Your task to perform on an android device: Open the calendar and show me this week's events? Image 0: 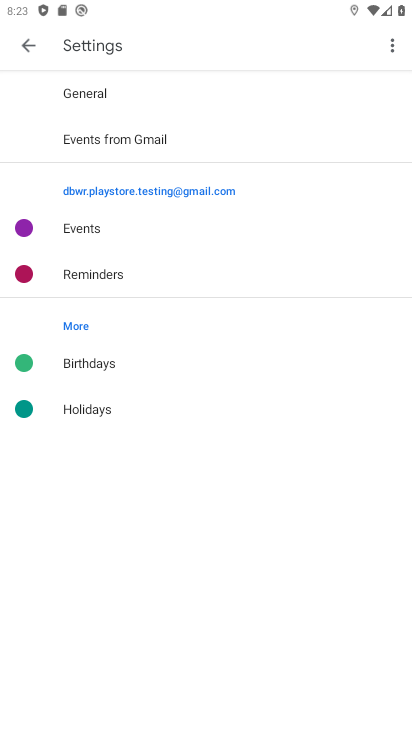
Step 0: press home button
Your task to perform on an android device: Open the calendar and show me this week's events? Image 1: 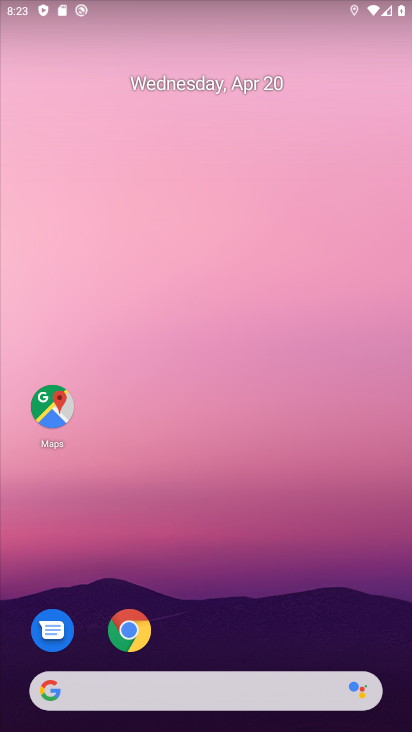
Step 1: drag from (236, 379) to (305, 5)
Your task to perform on an android device: Open the calendar and show me this week's events? Image 2: 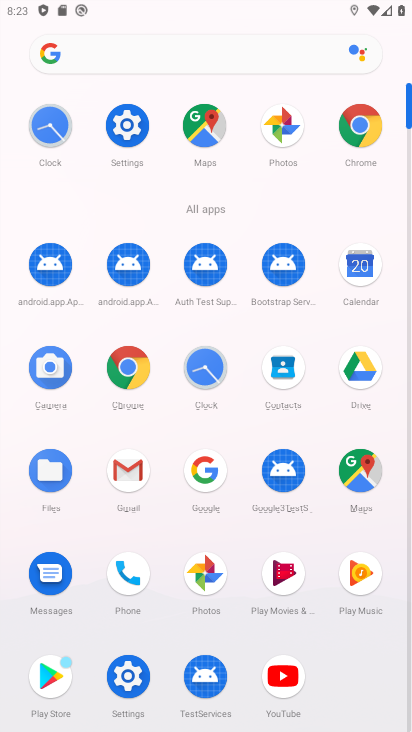
Step 2: drag from (212, 628) to (230, 57)
Your task to perform on an android device: Open the calendar and show me this week's events? Image 3: 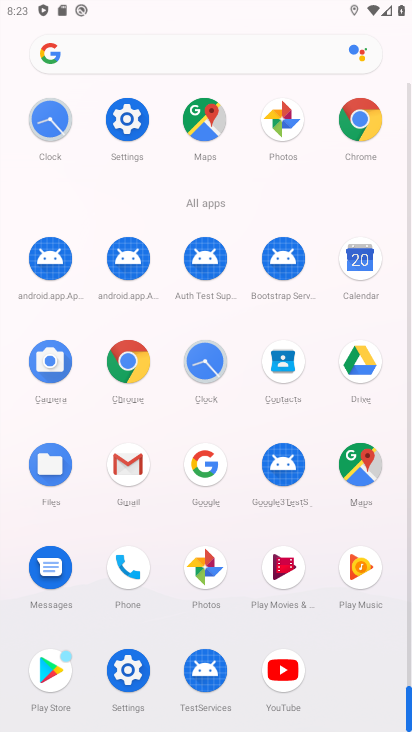
Step 3: click (372, 274)
Your task to perform on an android device: Open the calendar and show me this week's events? Image 4: 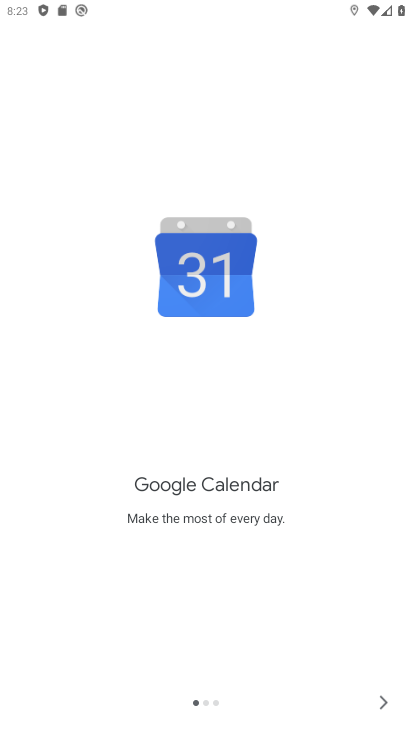
Step 4: click (372, 700)
Your task to perform on an android device: Open the calendar and show me this week's events? Image 5: 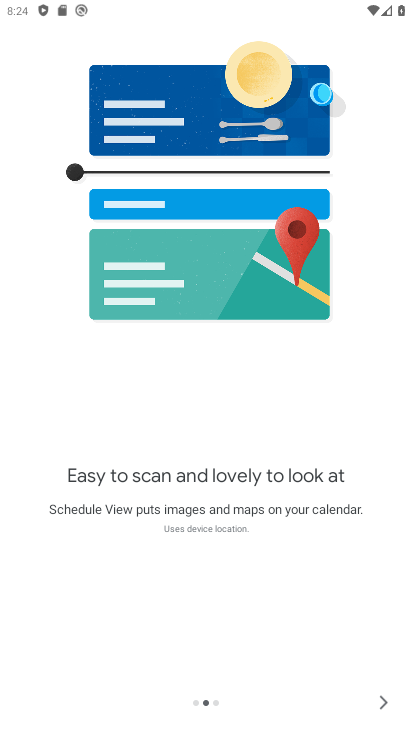
Step 5: click (373, 699)
Your task to perform on an android device: Open the calendar and show me this week's events? Image 6: 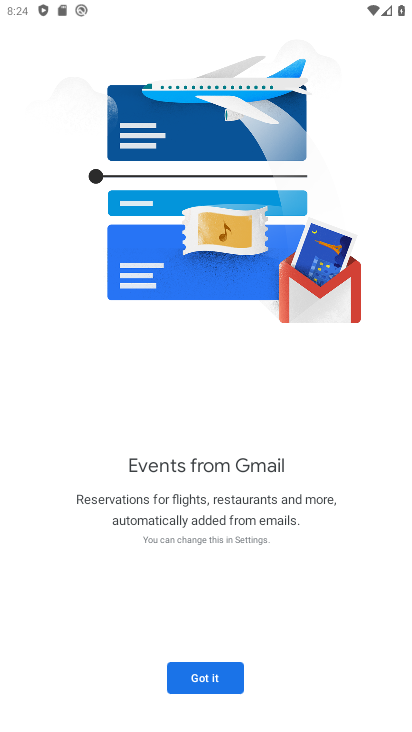
Step 6: click (193, 676)
Your task to perform on an android device: Open the calendar and show me this week's events? Image 7: 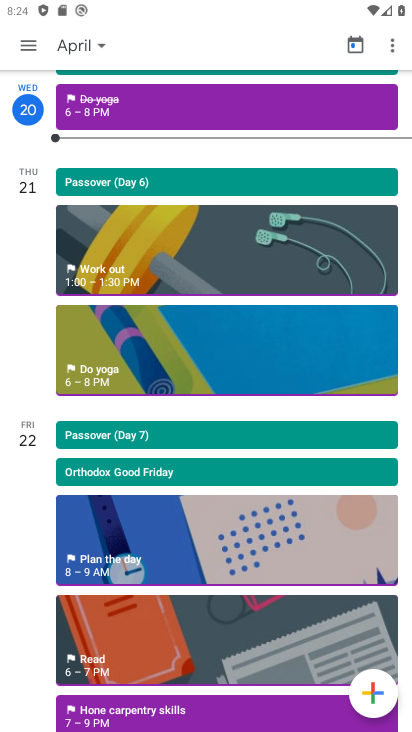
Step 7: click (29, 38)
Your task to perform on an android device: Open the calendar and show me this week's events? Image 8: 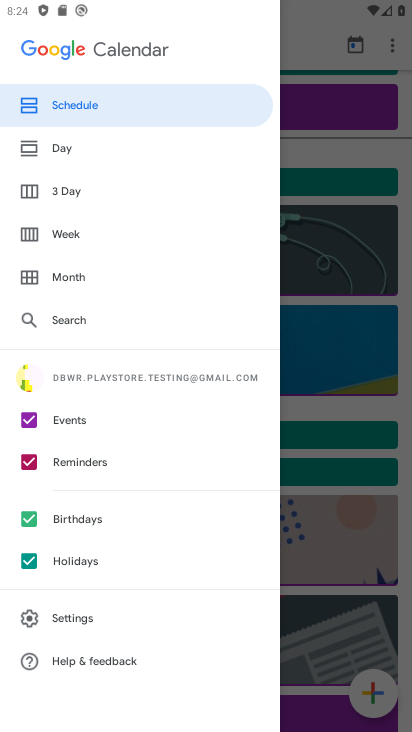
Step 8: click (36, 460)
Your task to perform on an android device: Open the calendar and show me this week's events? Image 9: 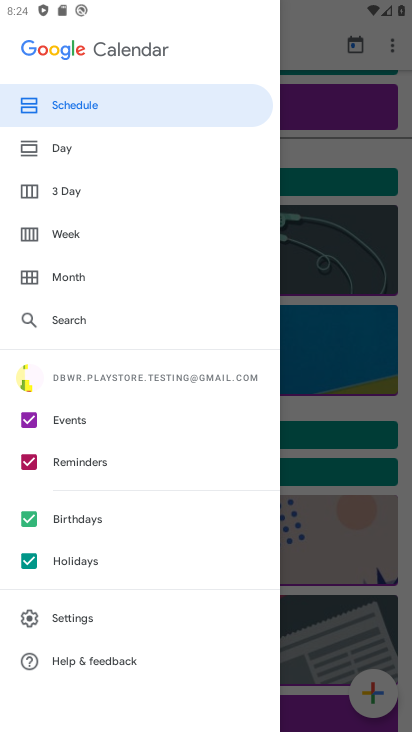
Step 9: click (26, 515)
Your task to perform on an android device: Open the calendar and show me this week's events? Image 10: 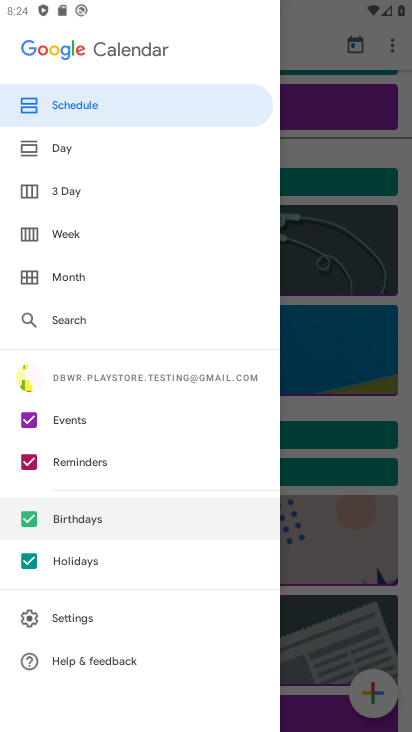
Step 10: click (26, 562)
Your task to perform on an android device: Open the calendar and show me this week's events? Image 11: 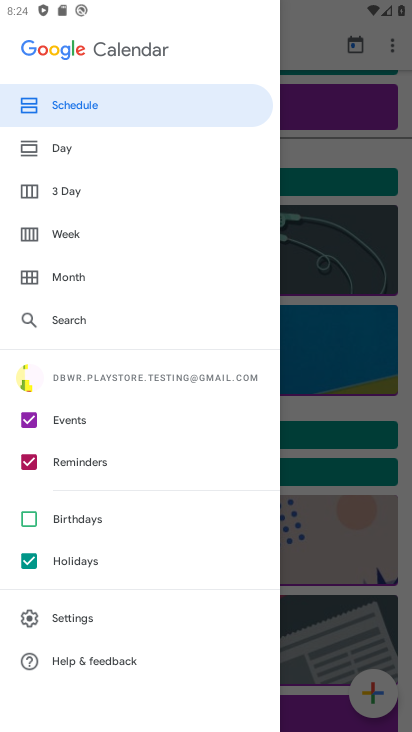
Step 11: click (26, 455)
Your task to perform on an android device: Open the calendar and show me this week's events? Image 12: 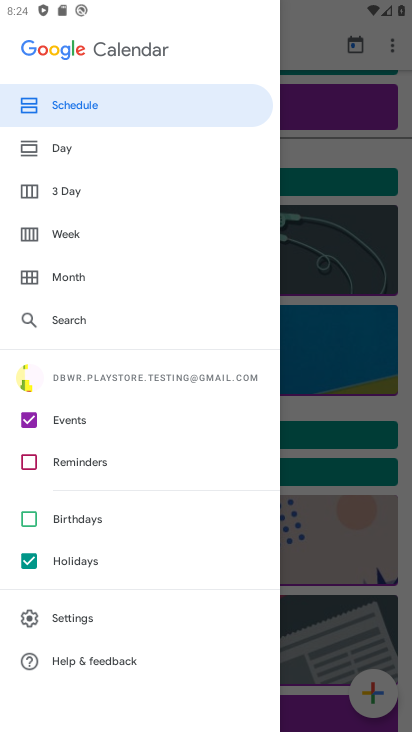
Step 12: click (32, 563)
Your task to perform on an android device: Open the calendar and show me this week's events? Image 13: 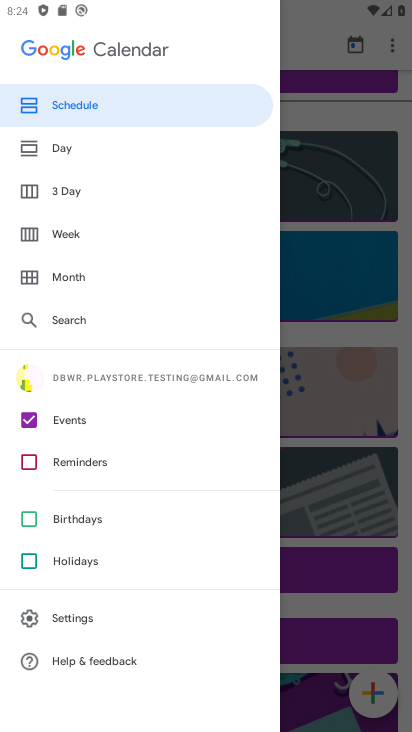
Step 13: click (72, 236)
Your task to perform on an android device: Open the calendar and show me this week's events? Image 14: 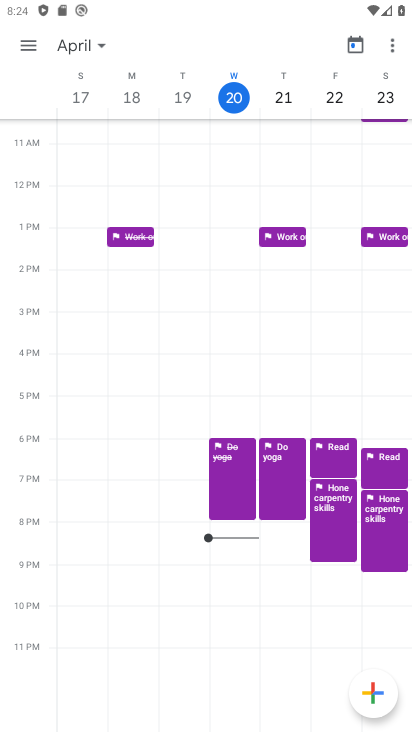
Step 14: task complete